Your task to perform on an android device: see creations saved in the google photos Image 0: 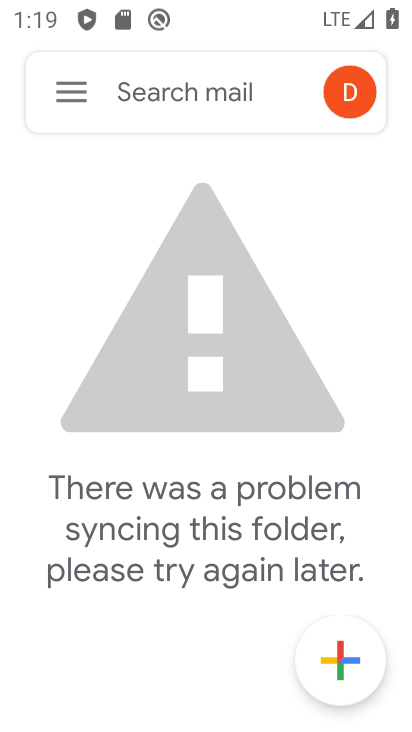
Step 0: press home button
Your task to perform on an android device: see creations saved in the google photos Image 1: 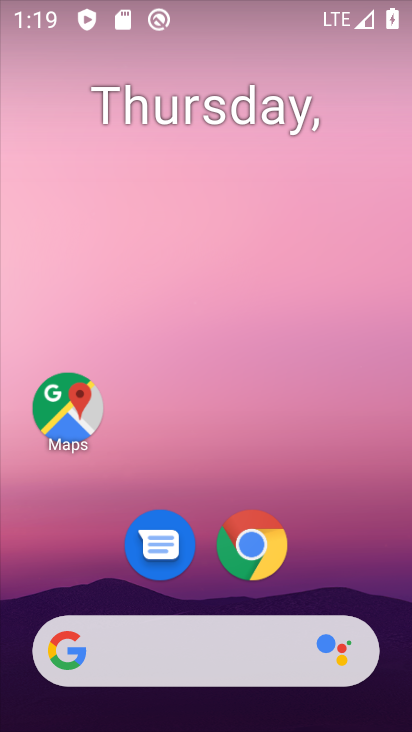
Step 1: drag from (170, 690) to (222, 246)
Your task to perform on an android device: see creations saved in the google photos Image 2: 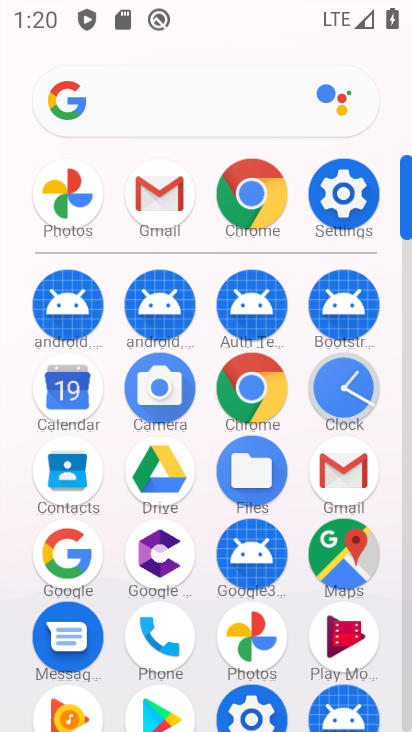
Step 2: click (80, 197)
Your task to perform on an android device: see creations saved in the google photos Image 3: 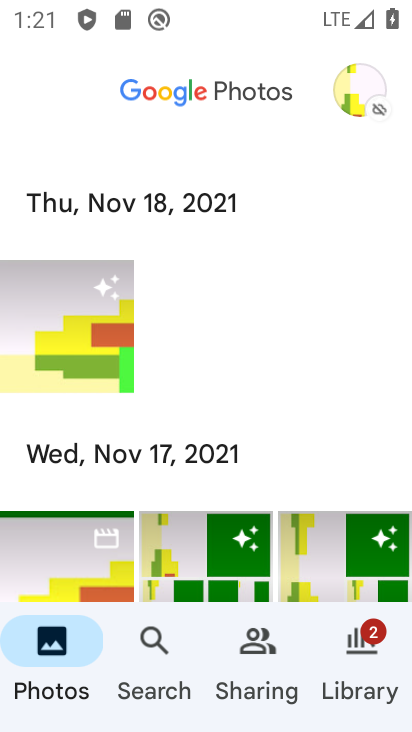
Step 3: click (148, 648)
Your task to perform on an android device: see creations saved in the google photos Image 4: 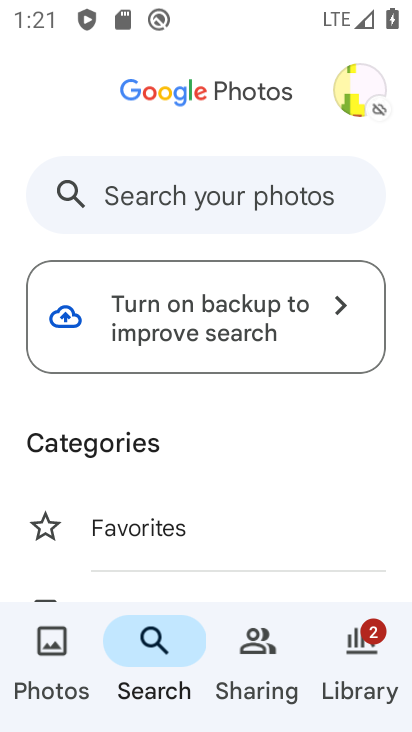
Step 4: drag from (241, 443) to (199, 38)
Your task to perform on an android device: see creations saved in the google photos Image 5: 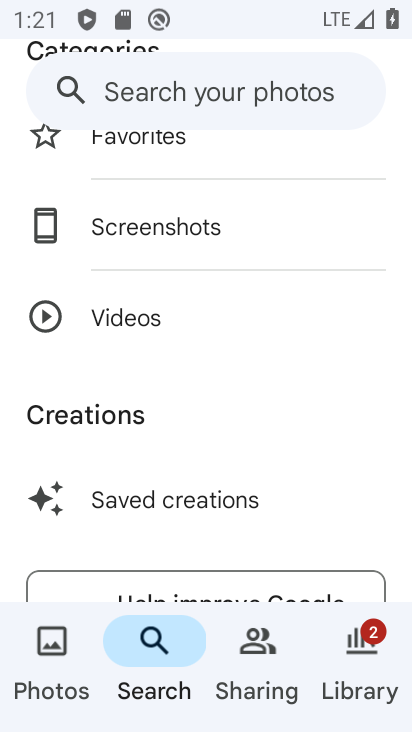
Step 5: click (133, 502)
Your task to perform on an android device: see creations saved in the google photos Image 6: 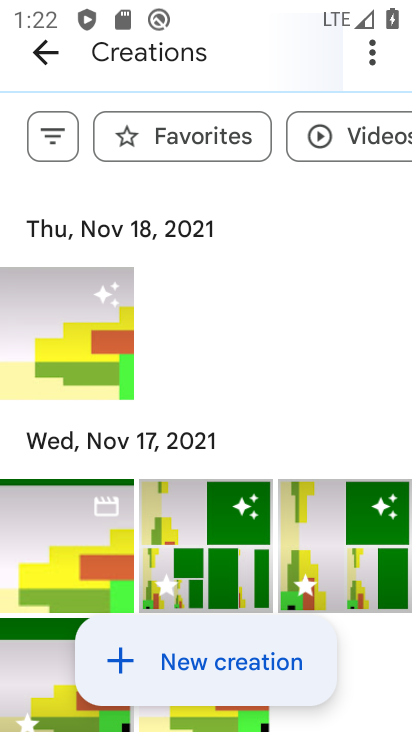
Step 6: task complete